Your task to perform on an android device: toggle location history Image 0: 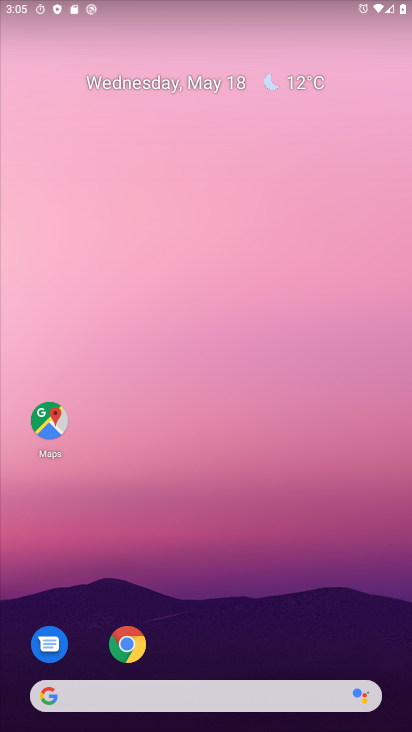
Step 0: drag from (383, 605) to (362, 313)
Your task to perform on an android device: toggle location history Image 1: 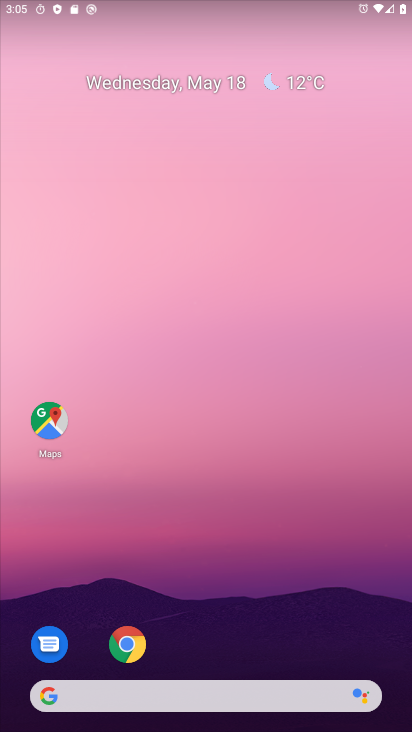
Step 1: drag from (401, 702) to (292, 6)
Your task to perform on an android device: toggle location history Image 2: 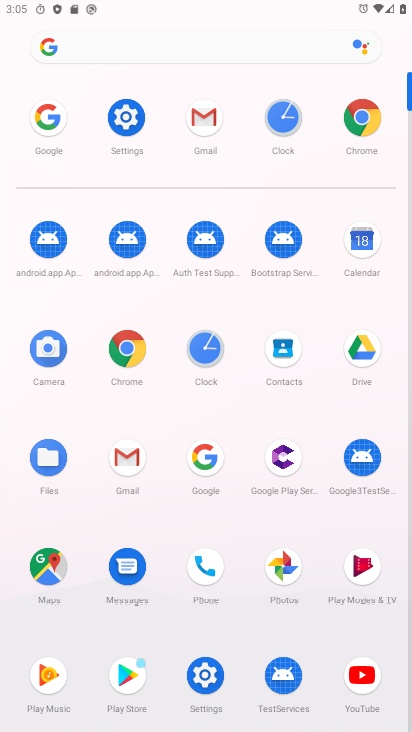
Step 2: click (204, 349)
Your task to perform on an android device: toggle location history Image 3: 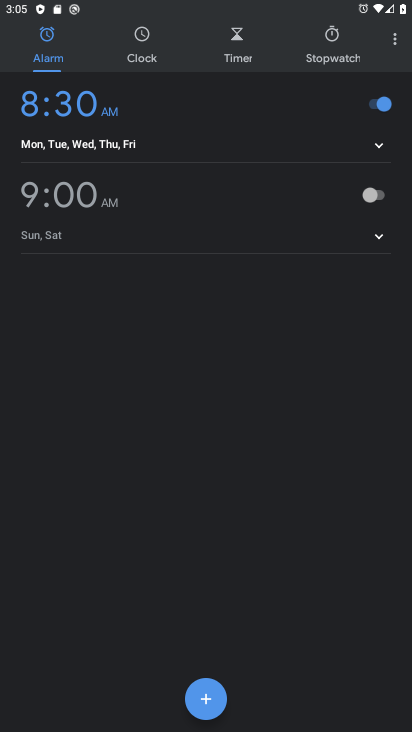
Step 3: press home button
Your task to perform on an android device: toggle location history Image 4: 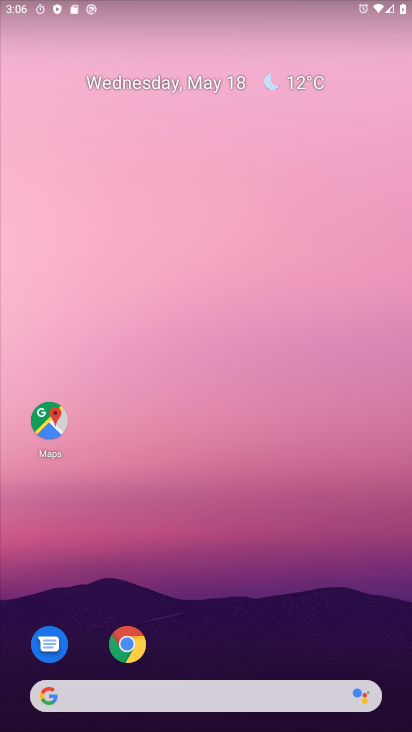
Step 4: drag from (397, 675) to (411, 158)
Your task to perform on an android device: toggle location history Image 5: 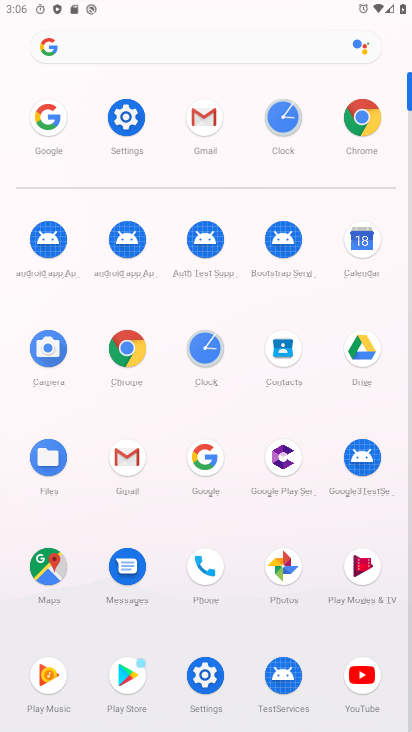
Step 5: click (125, 114)
Your task to perform on an android device: toggle location history Image 6: 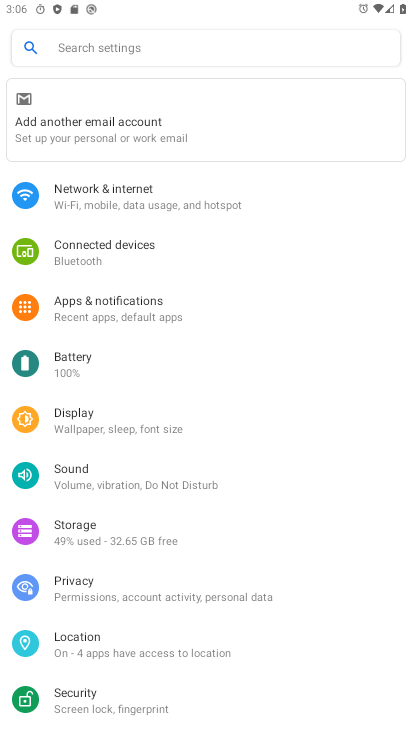
Step 6: click (71, 638)
Your task to perform on an android device: toggle location history Image 7: 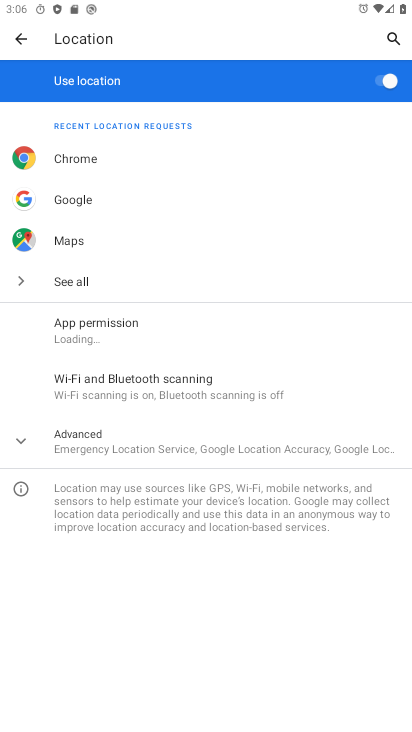
Step 7: click (39, 439)
Your task to perform on an android device: toggle location history Image 8: 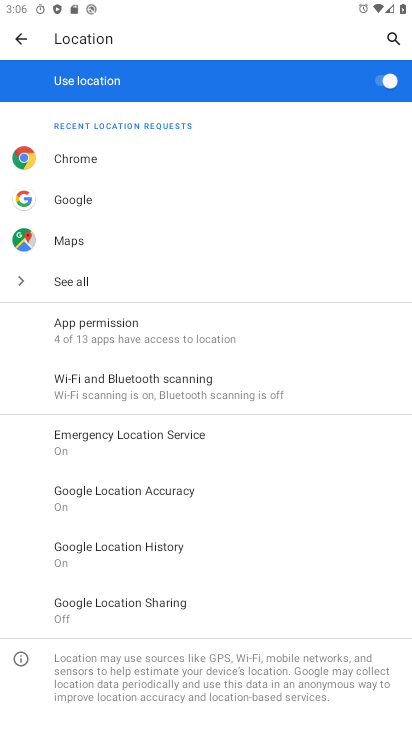
Step 8: click (134, 545)
Your task to perform on an android device: toggle location history Image 9: 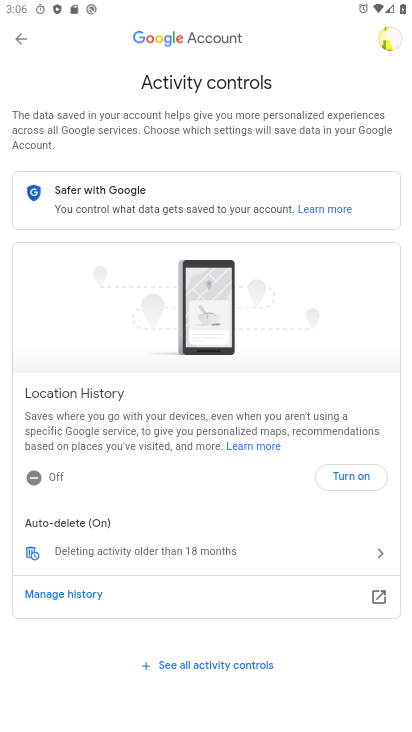
Step 9: click (335, 473)
Your task to perform on an android device: toggle location history Image 10: 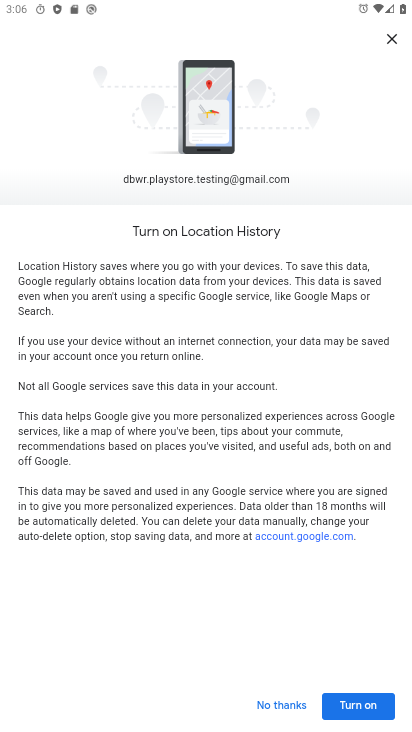
Step 10: click (368, 709)
Your task to perform on an android device: toggle location history Image 11: 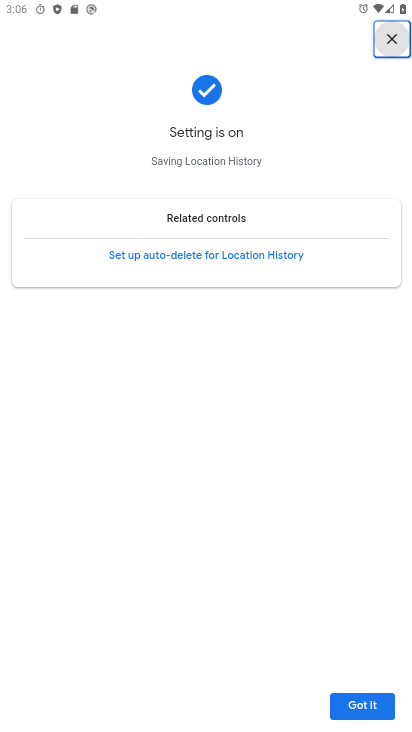
Step 11: click (369, 714)
Your task to perform on an android device: toggle location history Image 12: 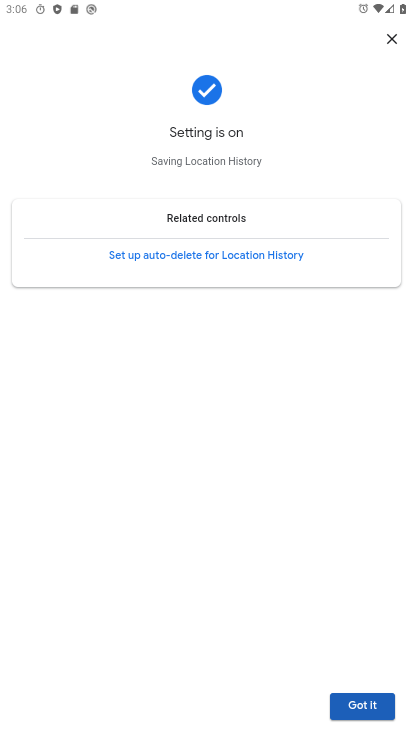
Step 12: click (369, 692)
Your task to perform on an android device: toggle location history Image 13: 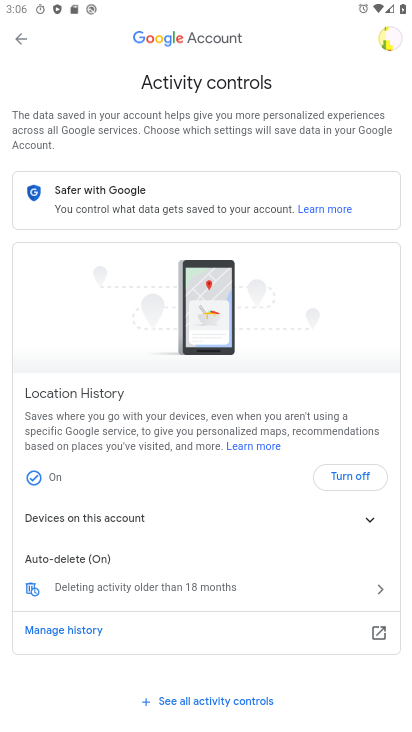
Step 13: click (333, 481)
Your task to perform on an android device: toggle location history Image 14: 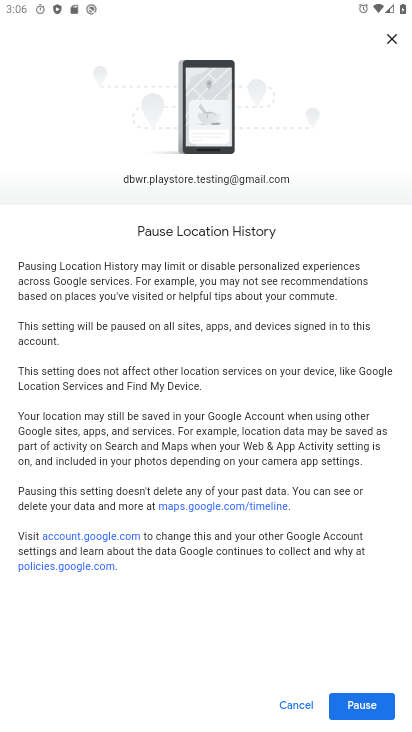
Step 14: click (347, 709)
Your task to perform on an android device: toggle location history Image 15: 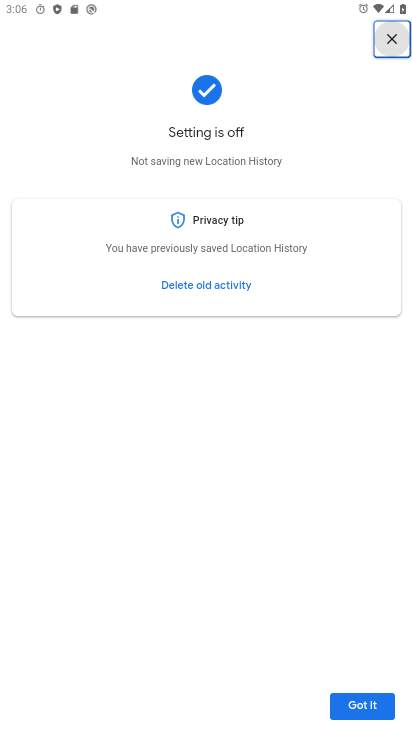
Step 15: click (347, 709)
Your task to perform on an android device: toggle location history Image 16: 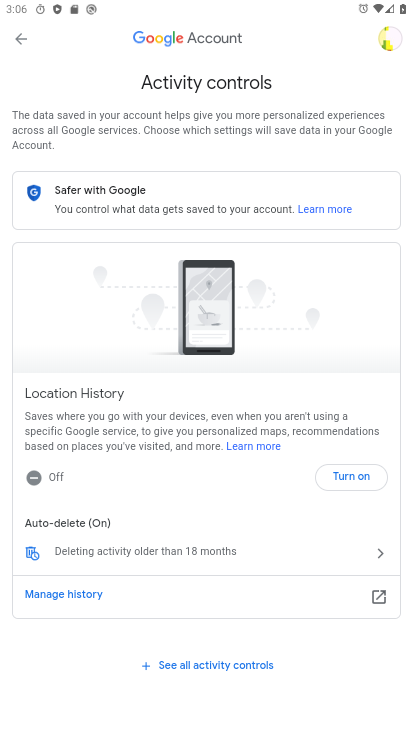
Step 16: task complete